Your task to perform on an android device: Open Maps and search for coffee Image 0: 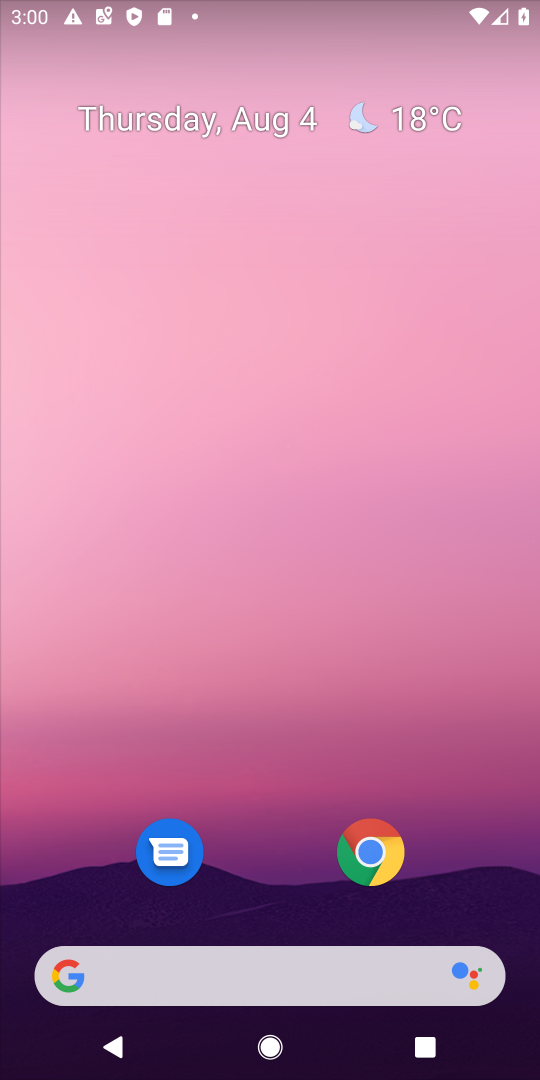
Step 0: drag from (280, 817) to (354, 104)
Your task to perform on an android device: Open Maps and search for coffee Image 1: 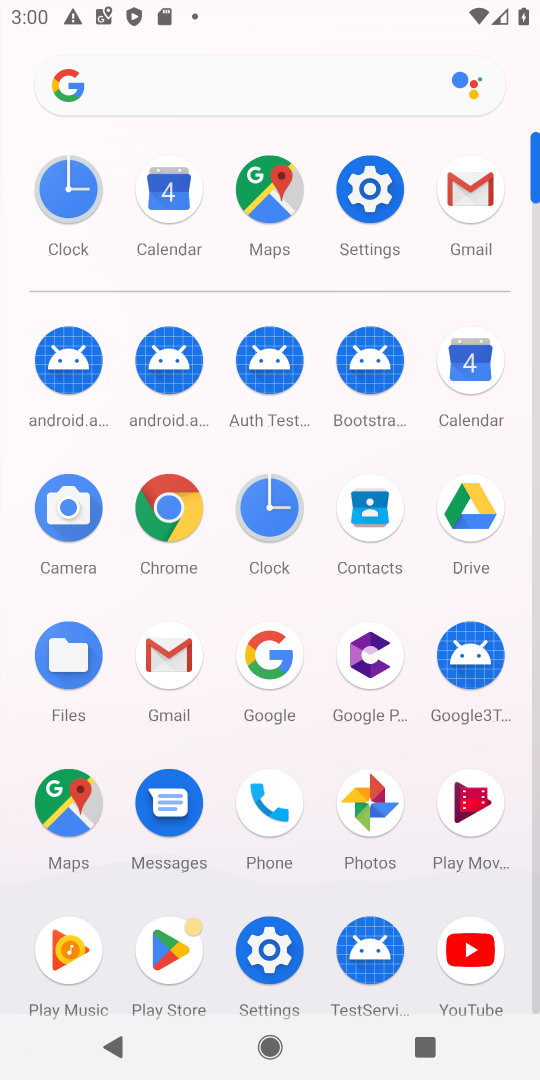
Step 1: click (272, 190)
Your task to perform on an android device: Open Maps and search for coffee Image 2: 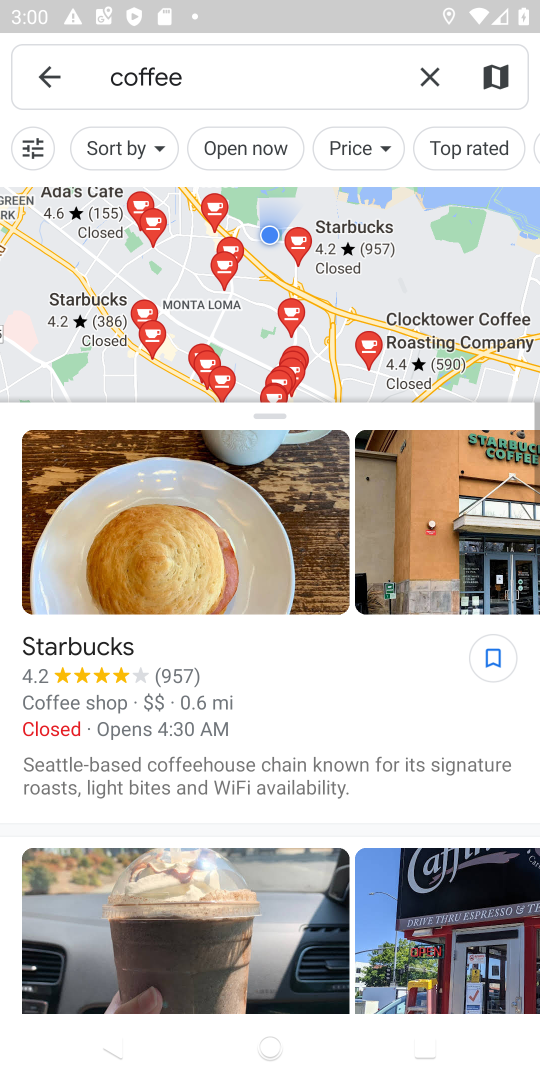
Step 2: task complete